Your task to perform on an android device: toggle show notifications on the lock screen Image 0: 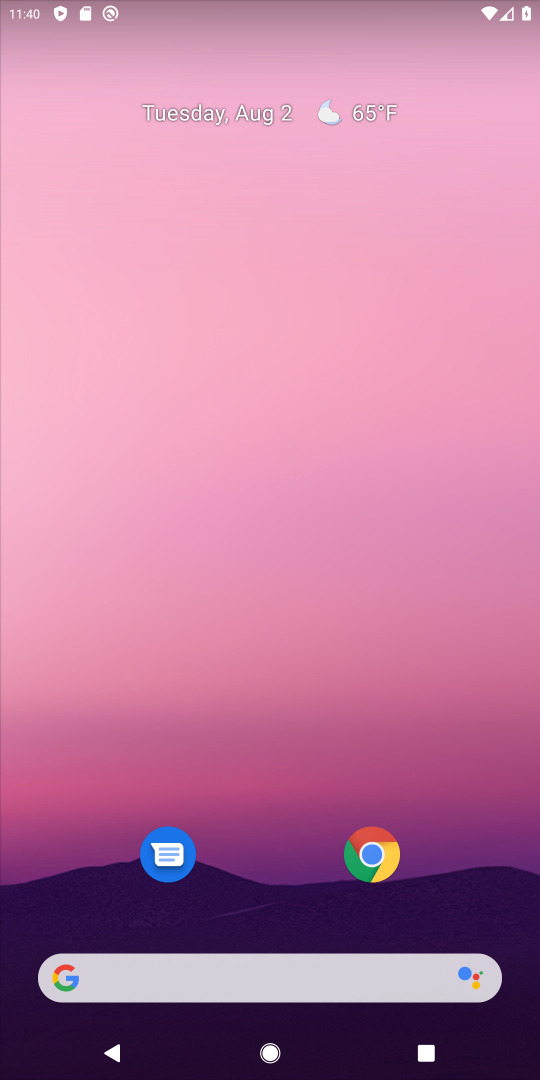
Step 0: drag from (274, 868) to (324, 144)
Your task to perform on an android device: toggle show notifications on the lock screen Image 1: 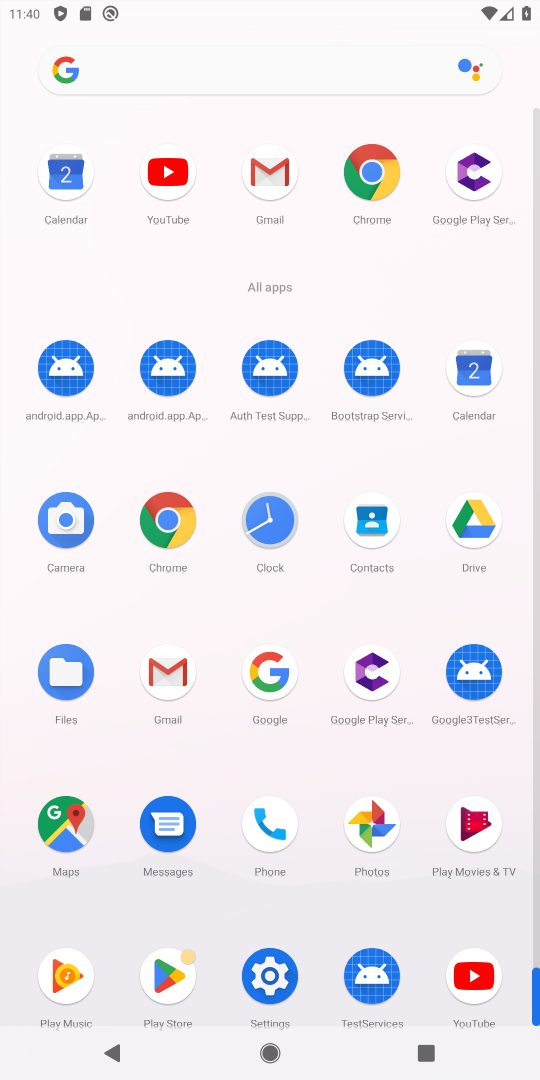
Step 1: drag from (410, 945) to (407, 506)
Your task to perform on an android device: toggle show notifications on the lock screen Image 2: 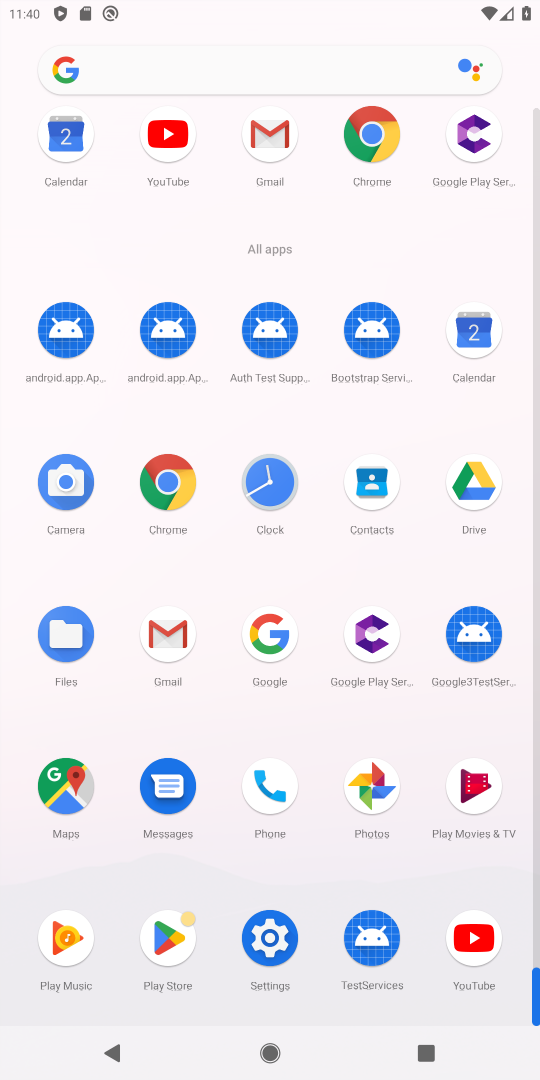
Step 2: click (275, 941)
Your task to perform on an android device: toggle show notifications on the lock screen Image 3: 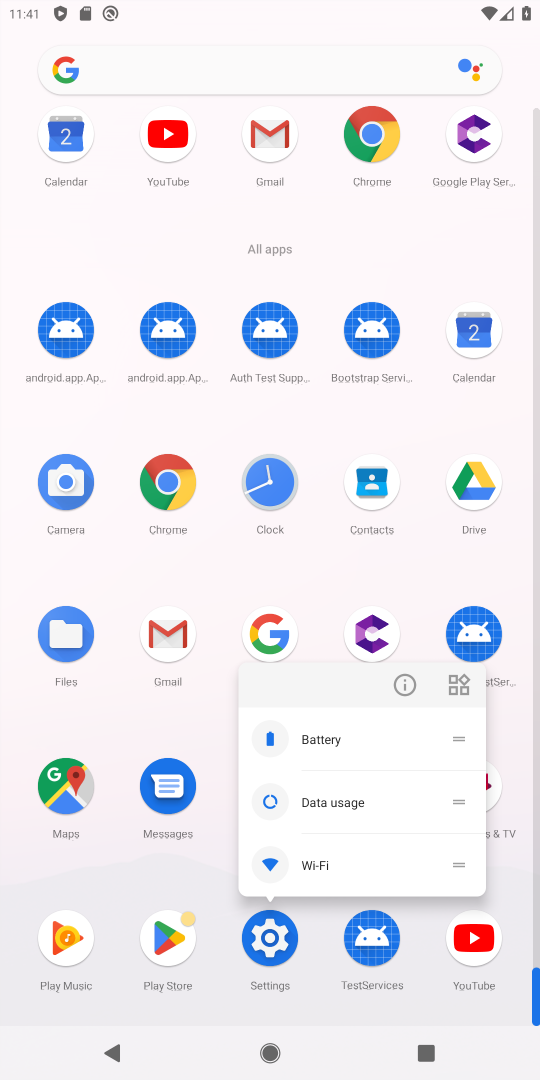
Step 3: click (274, 943)
Your task to perform on an android device: toggle show notifications on the lock screen Image 4: 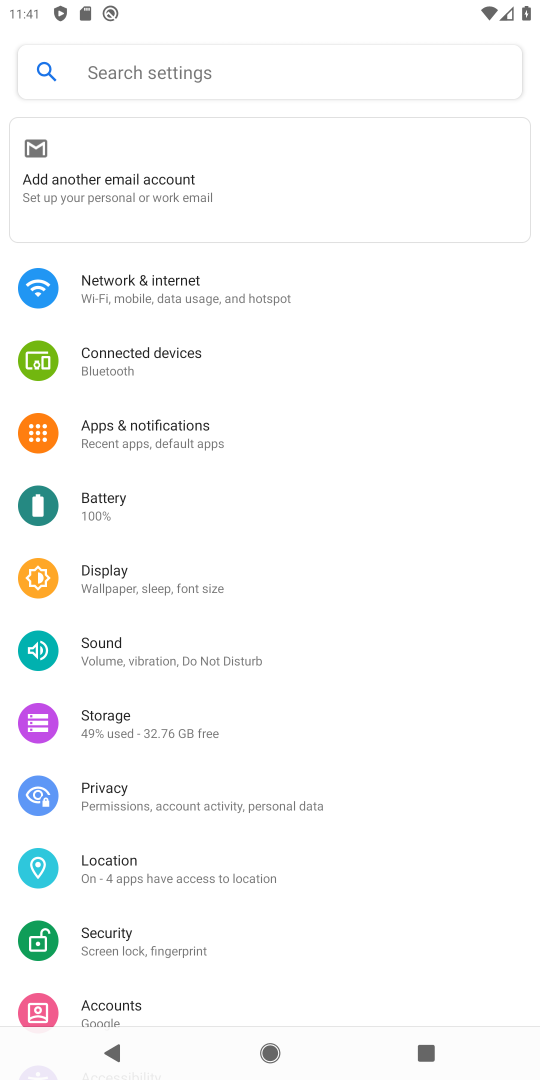
Step 4: click (167, 429)
Your task to perform on an android device: toggle show notifications on the lock screen Image 5: 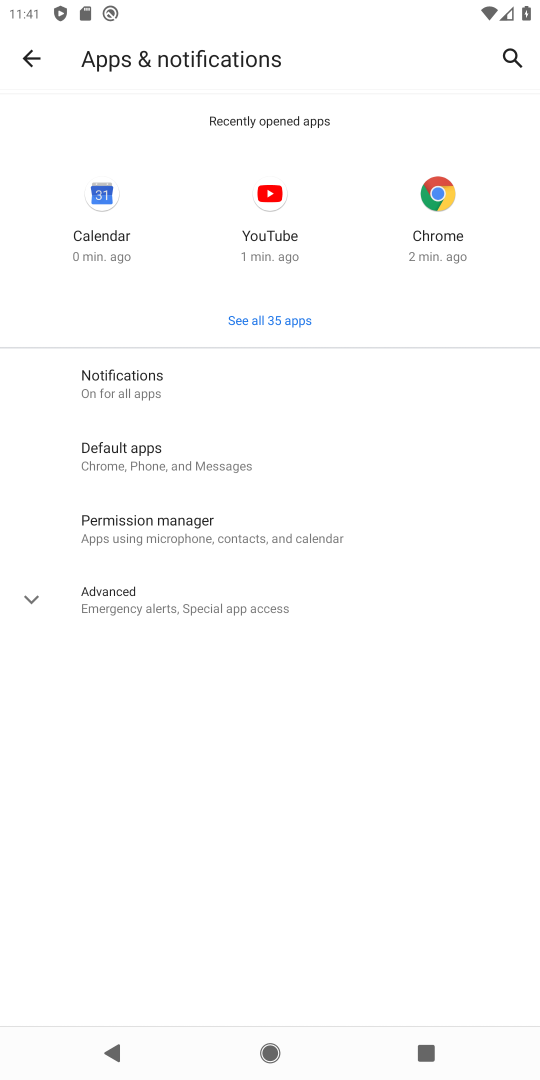
Step 5: click (126, 384)
Your task to perform on an android device: toggle show notifications on the lock screen Image 6: 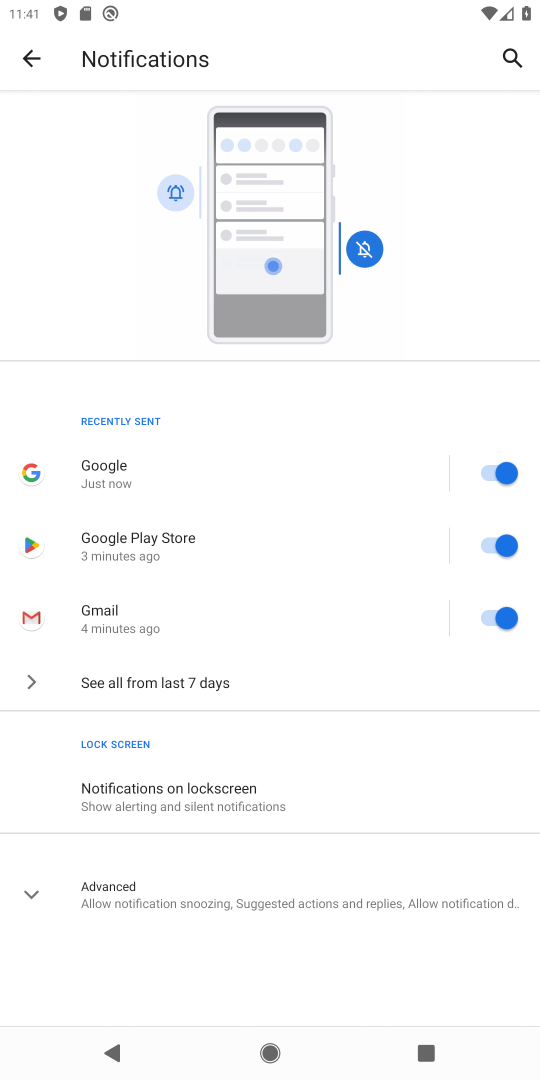
Step 6: click (197, 810)
Your task to perform on an android device: toggle show notifications on the lock screen Image 7: 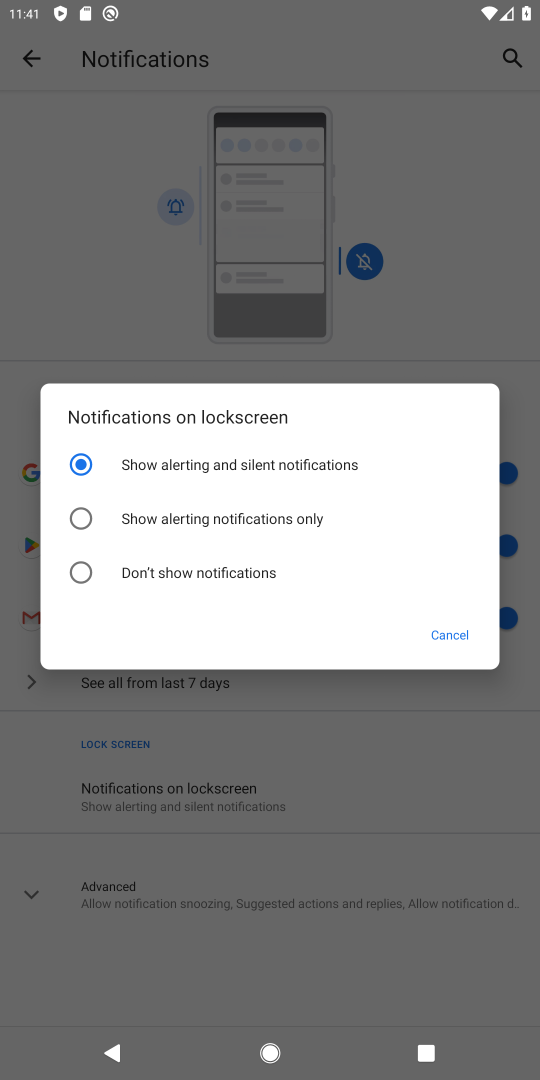
Step 7: click (275, 529)
Your task to perform on an android device: toggle show notifications on the lock screen Image 8: 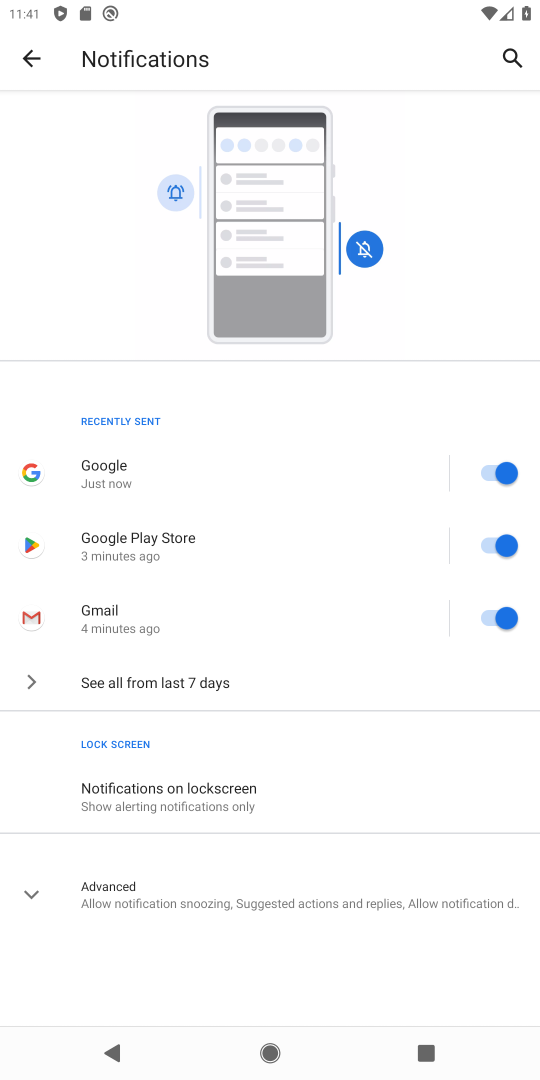
Step 8: task complete